Your task to perform on an android device: turn on sleep mode Image 0: 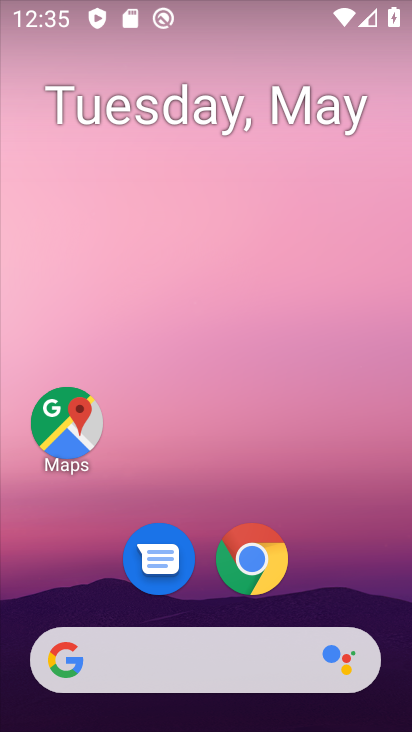
Step 0: drag from (325, 601) to (321, 208)
Your task to perform on an android device: turn on sleep mode Image 1: 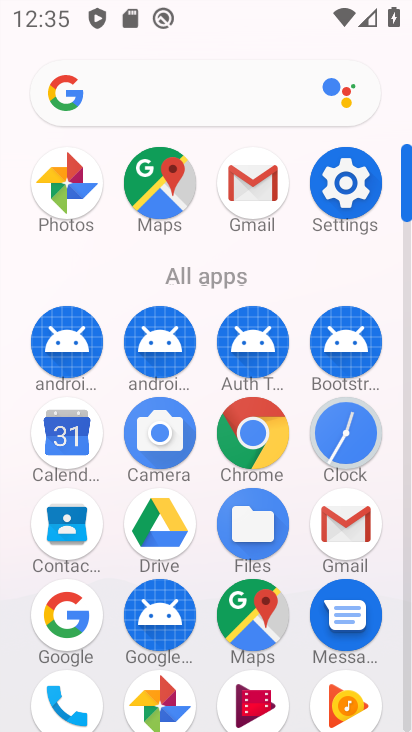
Step 1: drag from (301, 557) to (355, 235)
Your task to perform on an android device: turn on sleep mode Image 2: 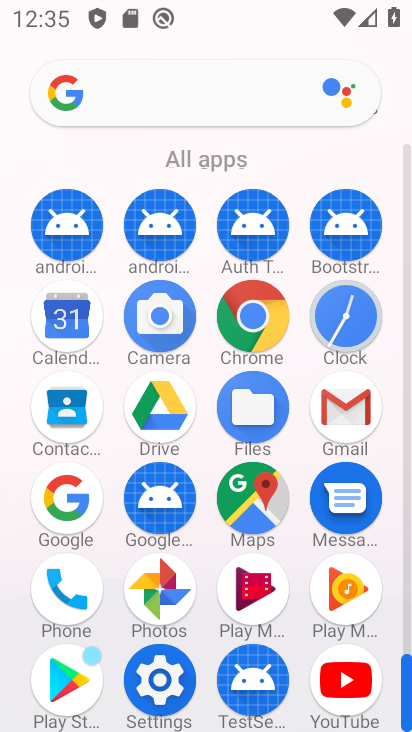
Step 2: drag from (206, 606) to (238, 283)
Your task to perform on an android device: turn on sleep mode Image 3: 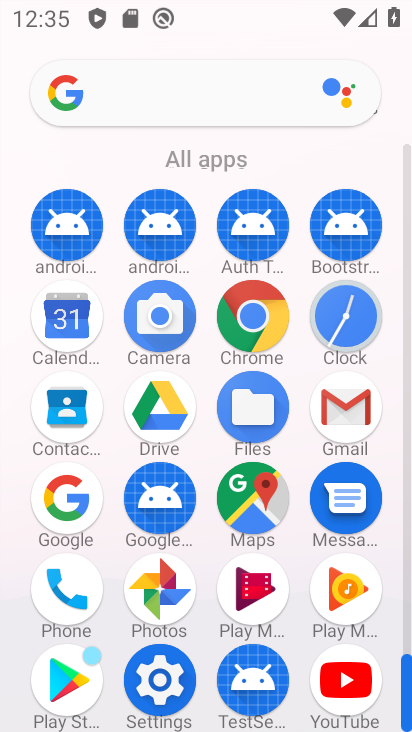
Step 3: click (158, 693)
Your task to perform on an android device: turn on sleep mode Image 4: 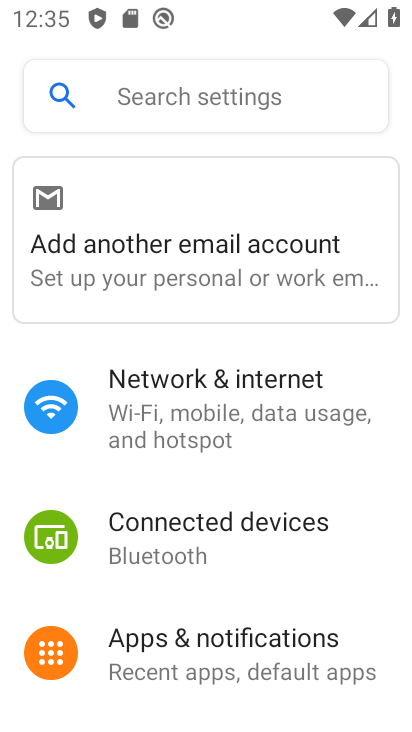
Step 4: drag from (216, 652) to (314, 234)
Your task to perform on an android device: turn on sleep mode Image 5: 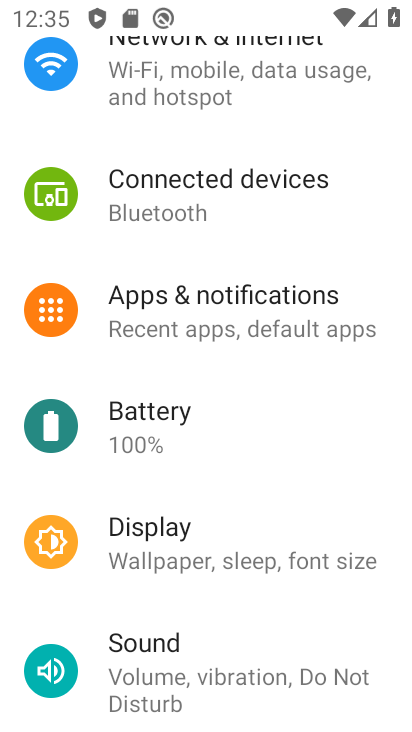
Step 5: click (243, 552)
Your task to perform on an android device: turn on sleep mode Image 6: 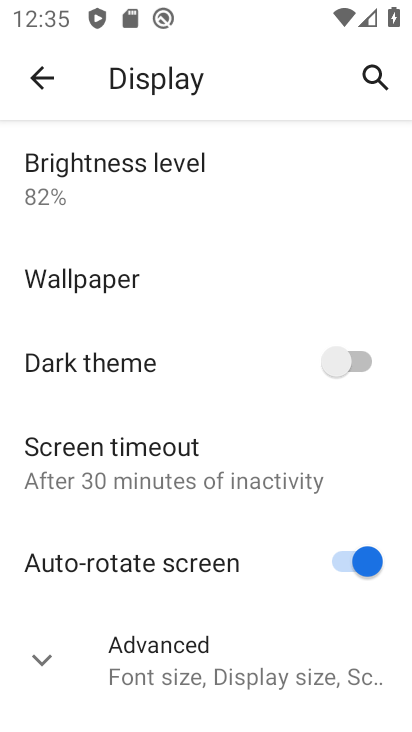
Step 6: click (251, 469)
Your task to perform on an android device: turn on sleep mode Image 7: 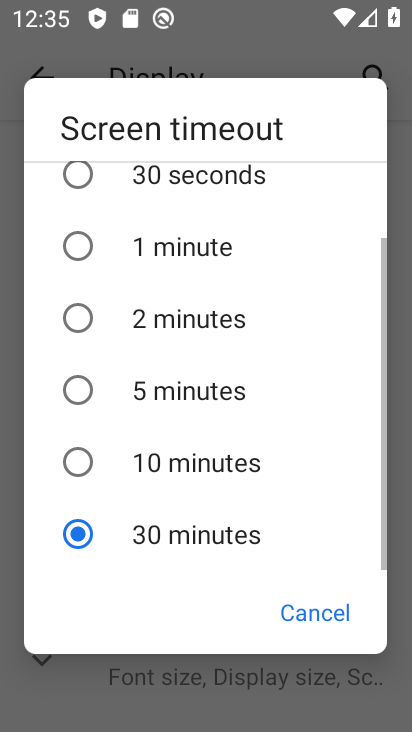
Step 7: task complete